Your task to perform on an android device: Check the weather Image 0: 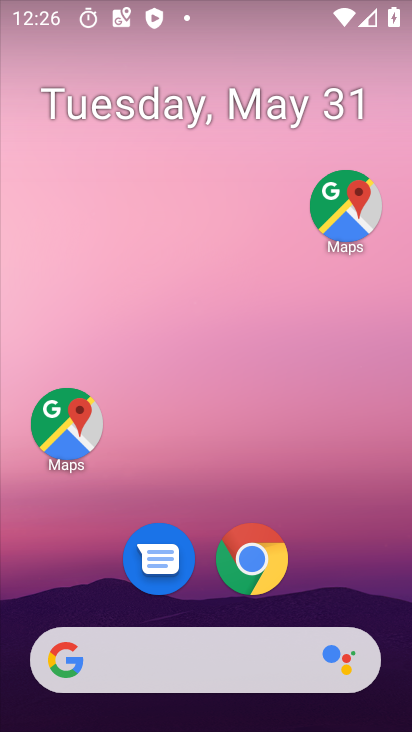
Step 0: drag from (353, 570) to (346, 143)
Your task to perform on an android device: Check the weather Image 1: 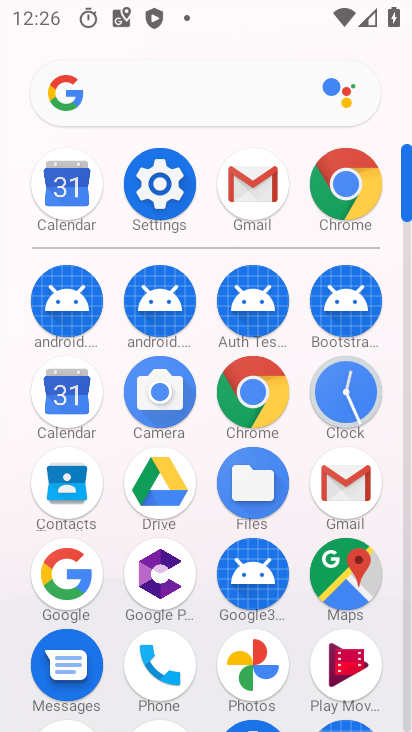
Step 1: click (250, 398)
Your task to perform on an android device: Check the weather Image 2: 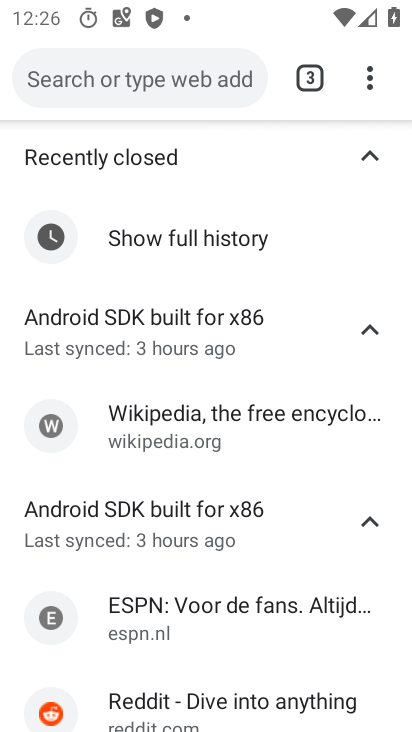
Step 2: click (173, 80)
Your task to perform on an android device: Check the weather Image 3: 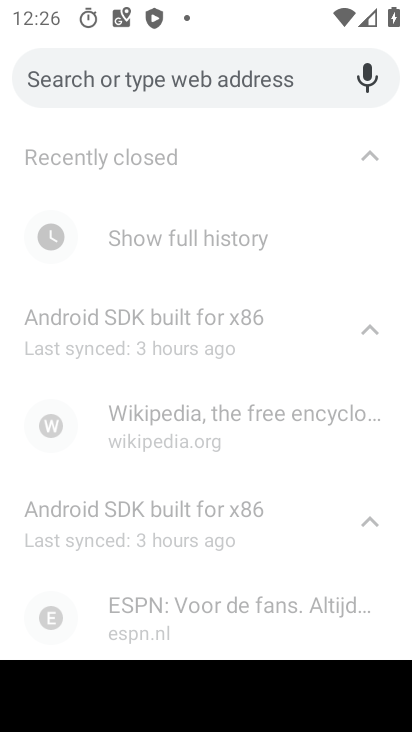
Step 3: type "weather"
Your task to perform on an android device: Check the weather Image 4: 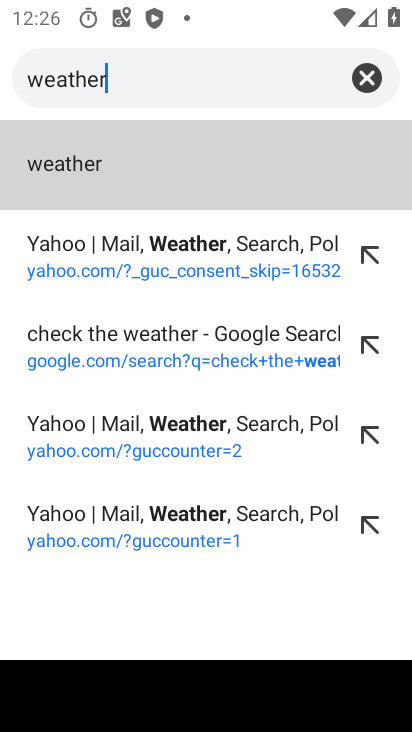
Step 4: click (82, 162)
Your task to perform on an android device: Check the weather Image 5: 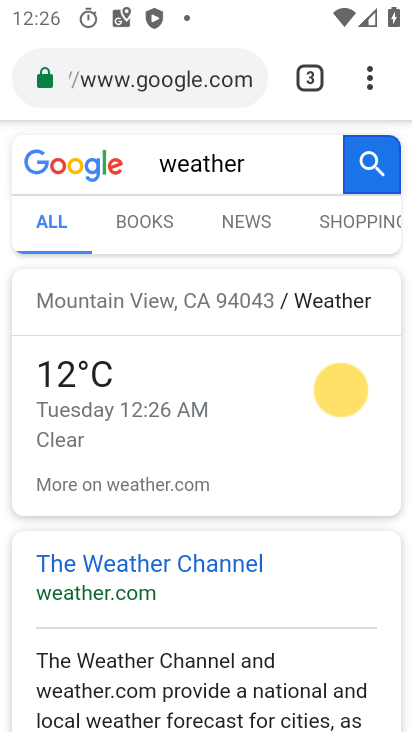
Step 5: task complete